Your task to perform on an android device: toggle priority inbox in the gmail app Image 0: 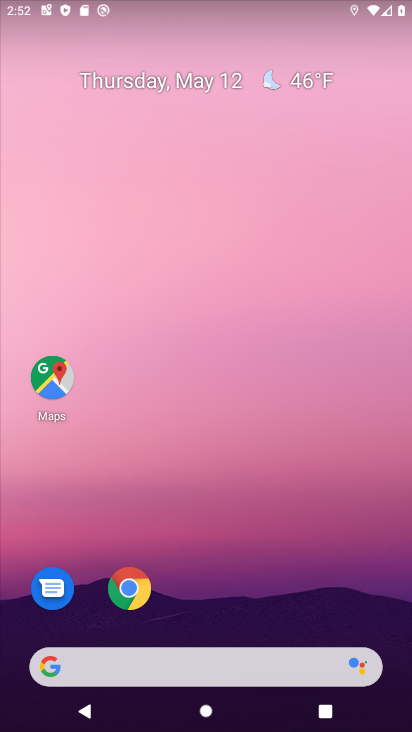
Step 0: drag from (394, 636) to (258, 46)
Your task to perform on an android device: toggle priority inbox in the gmail app Image 1: 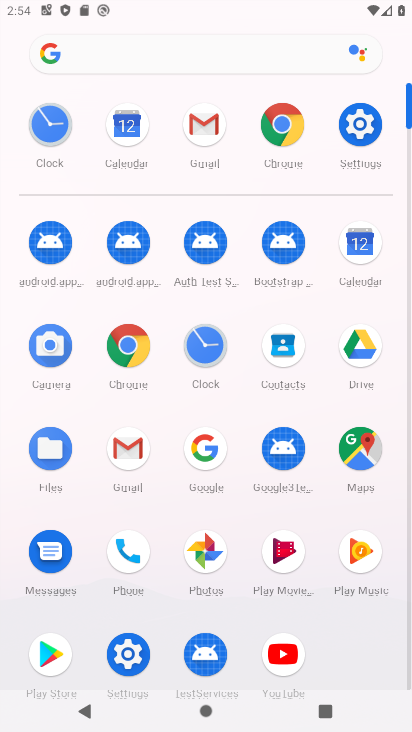
Step 1: click (142, 451)
Your task to perform on an android device: toggle priority inbox in the gmail app Image 2: 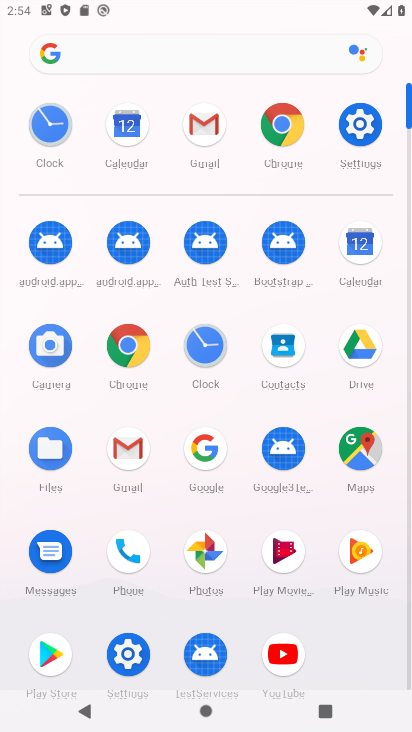
Step 2: click (142, 451)
Your task to perform on an android device: toggle priority inbox in the gmail app Image 3: 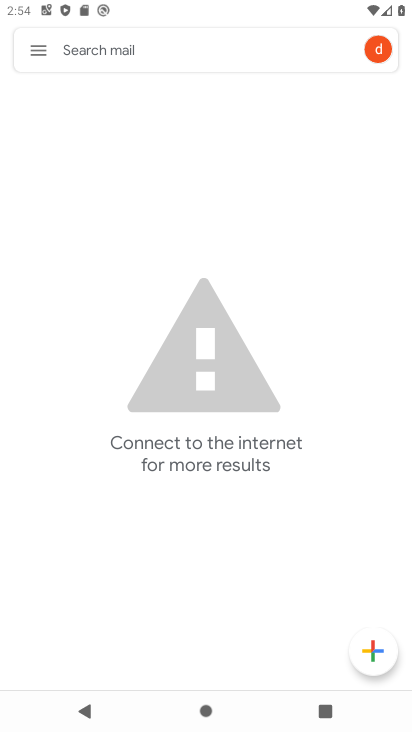
Step 3: click (37, 52)
Your task to perform on an android device: toggle priority inbox in the gmail app Image 4: 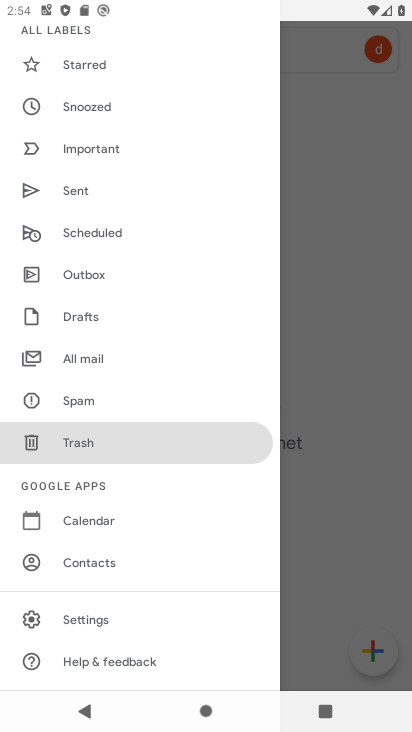
Step 4: click (141, 613)
Your task to perform on an android device: toggle priority inbox in the gmail app Image 5: 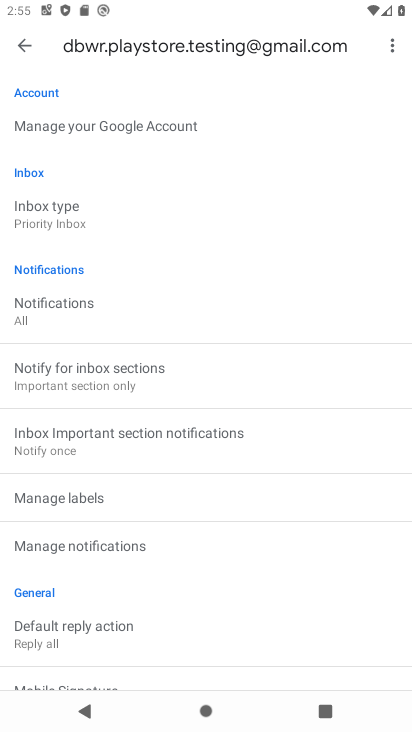
Step 5: click (85, 215)
Your task to perform on an android device: toggle priority inbox in the gmail app Image 6: 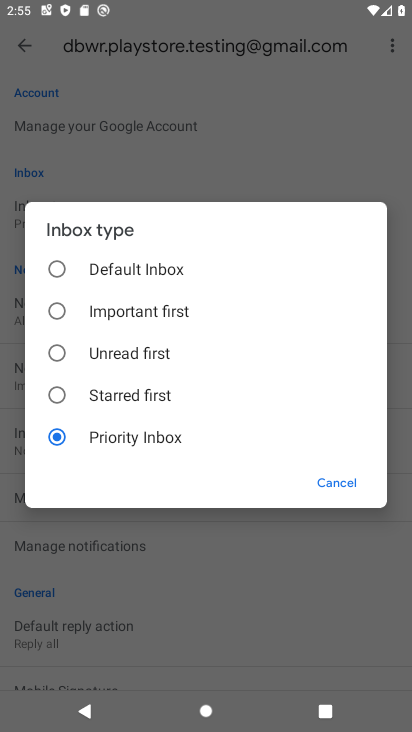
Step 6: click (133, 314)
Your task to perform on an android device: toggle priority inbox in the gmail app Image 7: 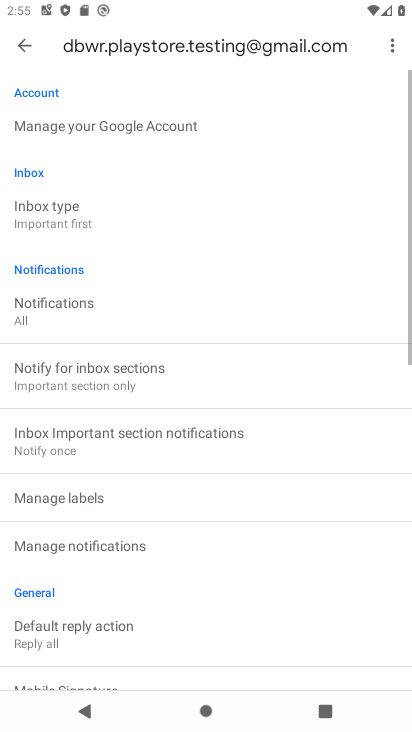
Step 7: task complete